Your task to perform on an android device: Open Youtube and go to "Your channel" Image 0: 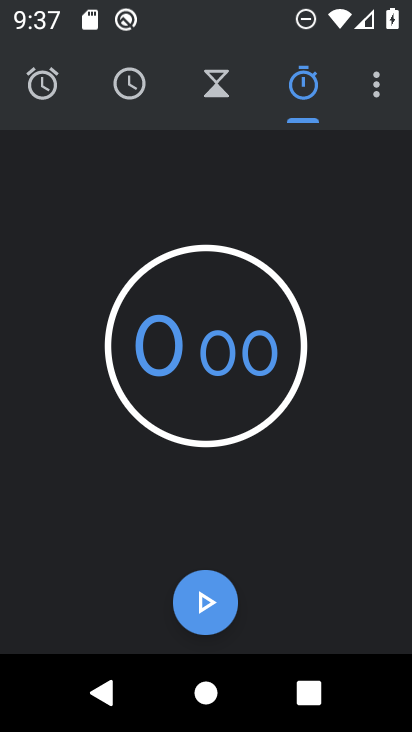
Step 0: press home button
Your task to perform on an android device: Open Youtube and go to "Your channel" Image 1: 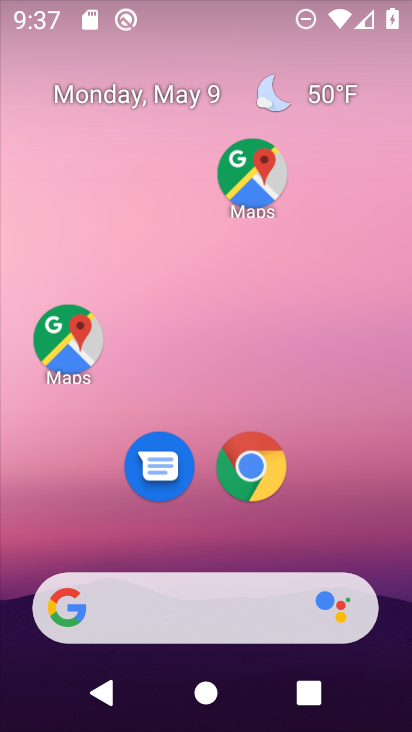
Step 1: drag from (305, 508) to (274, 42)
Your task to perform on an android device: Open Youtube and go to "Your channel" Image 2: 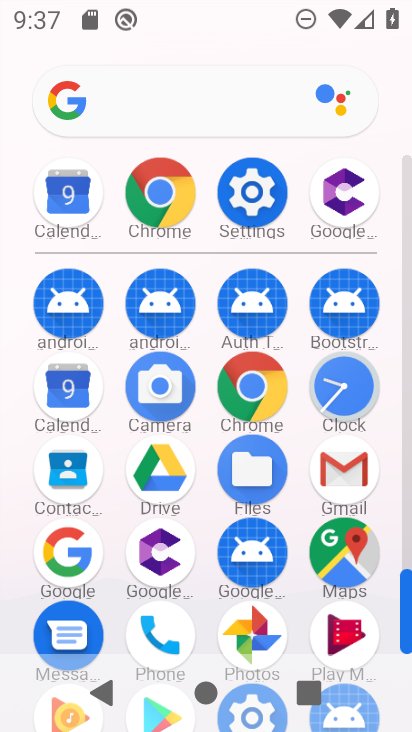
Step 2: drag from (197, 509) to (202, 196)
Your task to perform on an android device: Open Youtube and go to "Your channel" Image 3: 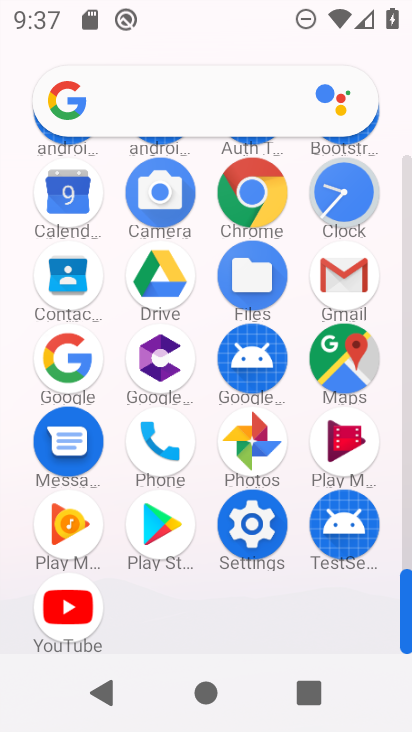
Step 3: click (69, 603)
Your task to perform on an android device: Open Youtube and go to "Your channel" Image 4: 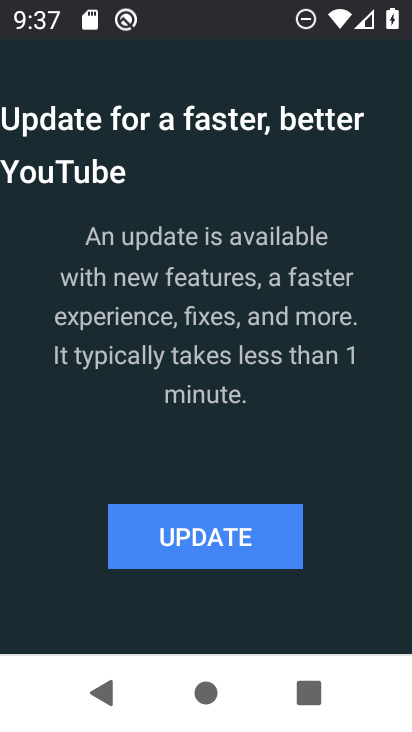
Step 4: click (208, 543)
Your task to perform on an android device: Open Youtube and go to "Your channel" Image 5: 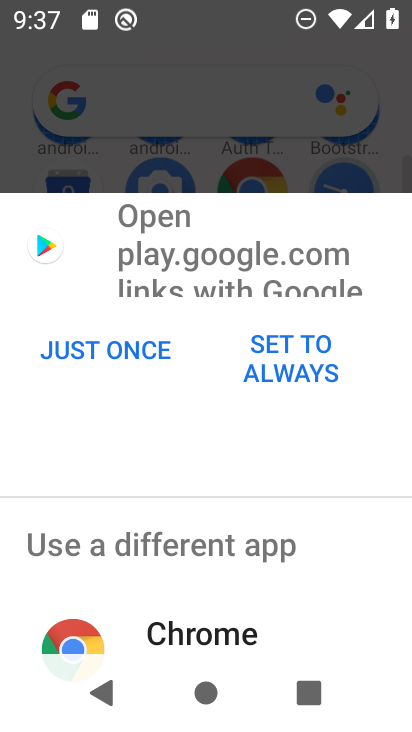
Step 5: click (78, 341)
Your task to perform on an android device: Open Youtube and go to "Your channel" Image 6: 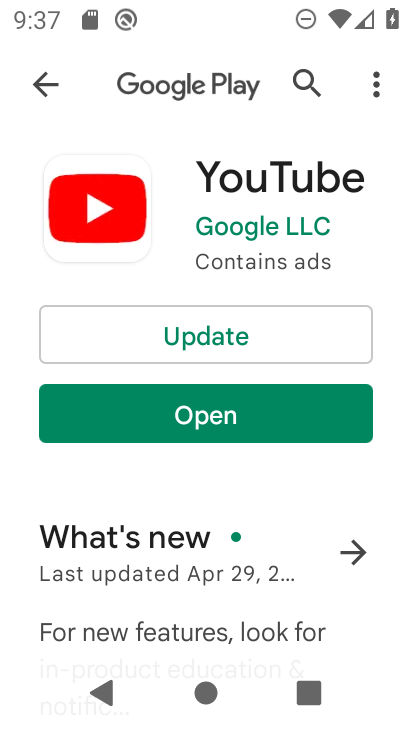
Step 6: click (133, 337)
Your task to perform on an android device: Open Youtube and go to "Your channel" Image 7: 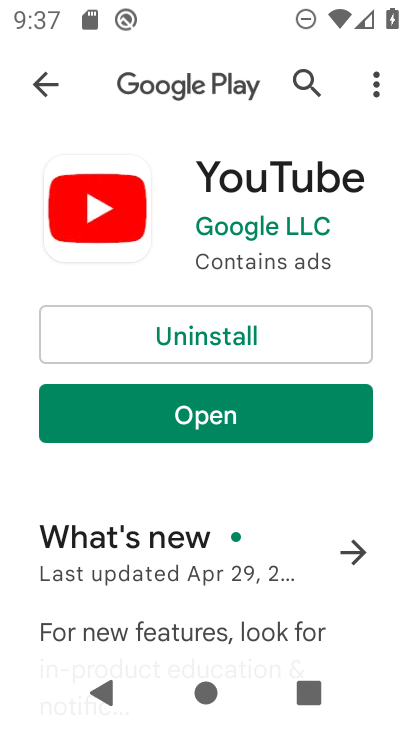
Step 7: click (67, 428)
Your task to perform on an android device: Open Youtube and go to "Your channel" Image 8: 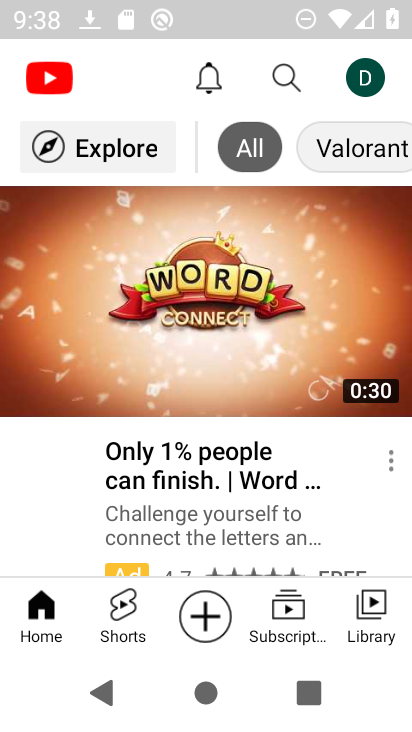
Step 8: click (354, 82)
Your task to perform on an android device: Open Youtube and go to "Your channel" Image 9: 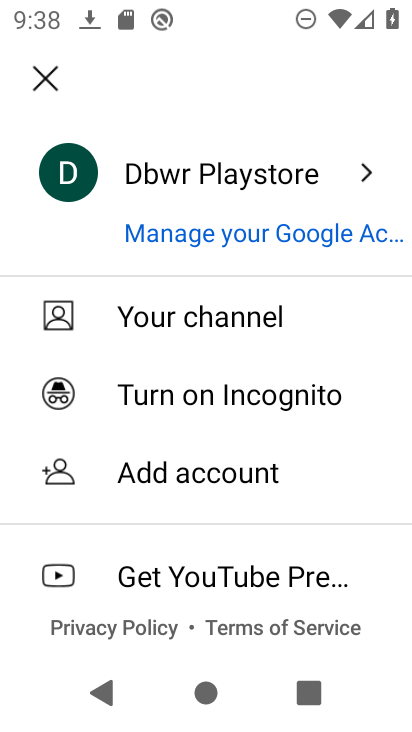
Step 9: click (148, 322)
Your task to perform on an android device: Open Youtube and go to "Your channel" Image 10: 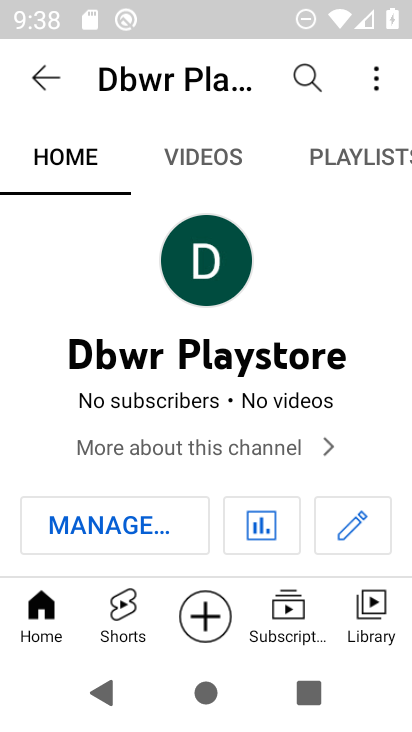
Step 10: task complete